Your task to perform on an android device: toggle location history Image 0: 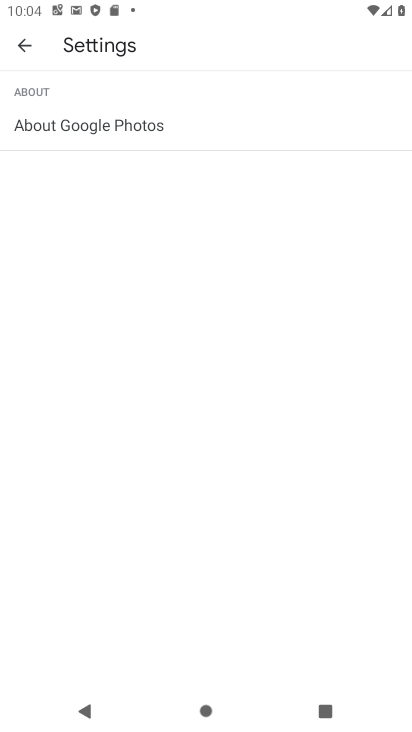
Step 0: press back button
Your task to perform on an android device: toggle location history Image 1: 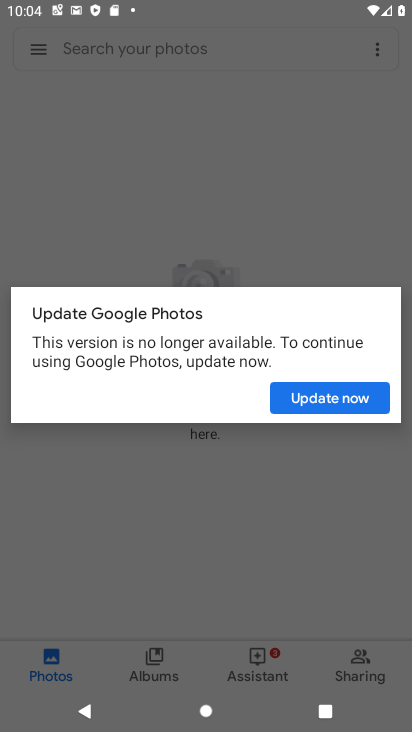
Step 1: press home button
Your task to perform on an android device: toggle location history Image 2: 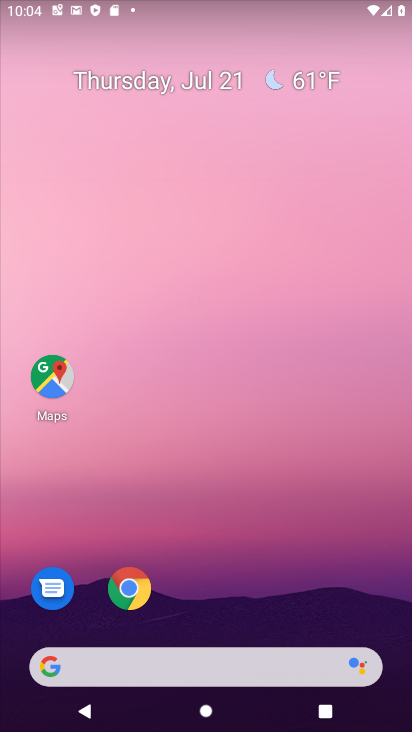
Step 2: drag from (205, 592) to (279, 0)
Your task to perform on an android device: toggle location history Image 3: 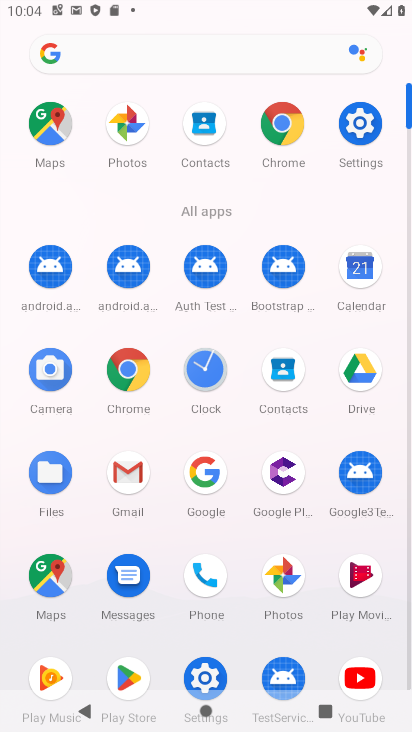
Step 3: click (356, 120)
Your task to perform on an android device: toggle location history Image 4: 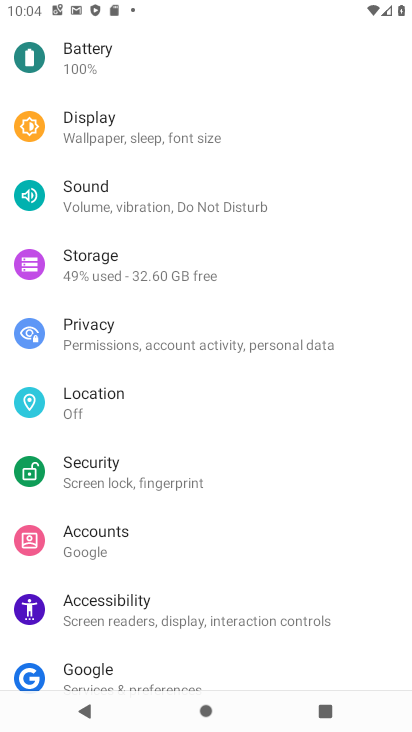
Step 4: click (118, 401)
Your task to perform on an android device: toggle location history Image 5: 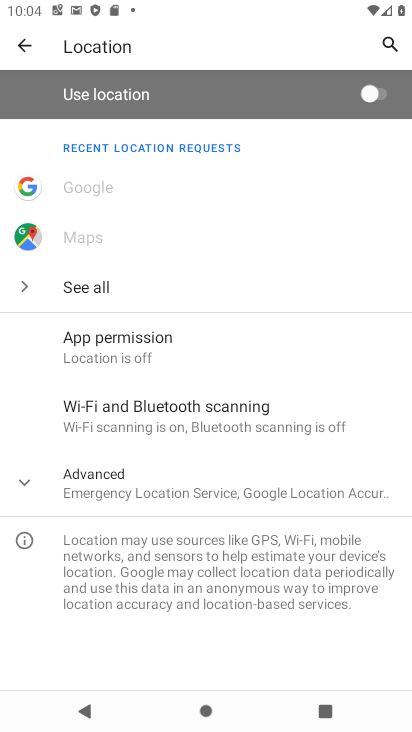
Step 5: click (137, 459)
Your task to perform on an android device: toggle location history Image 6: 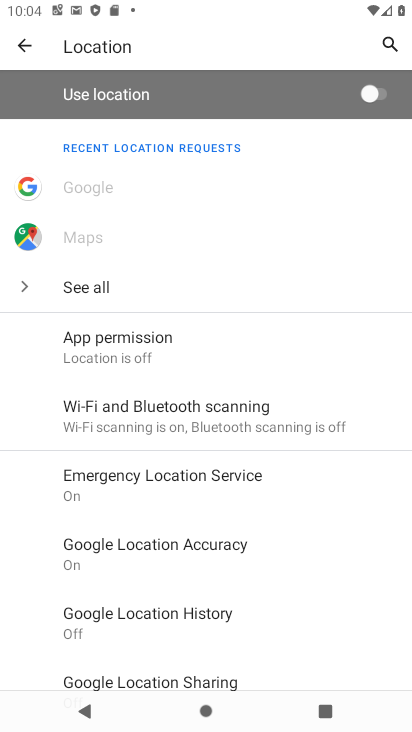
Step 6: click (167, 614)
Your task to perform on an android device: toggle location history Image 7: 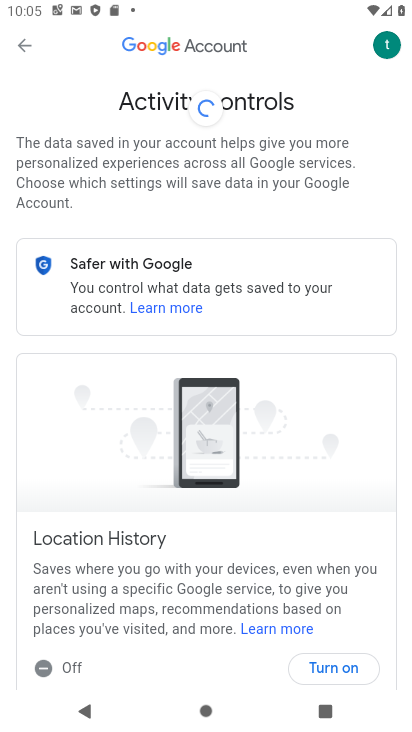
Step 7: click (363, 660)
Your task to perform on an android device: toggle location history Image 8: 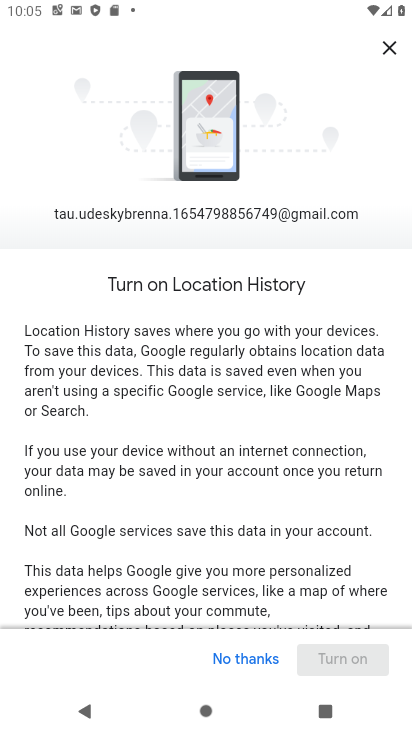
Step 8: drag from (244, 548) to (313, 11)
Your task to perform on an android device: toggle location history Image 9: 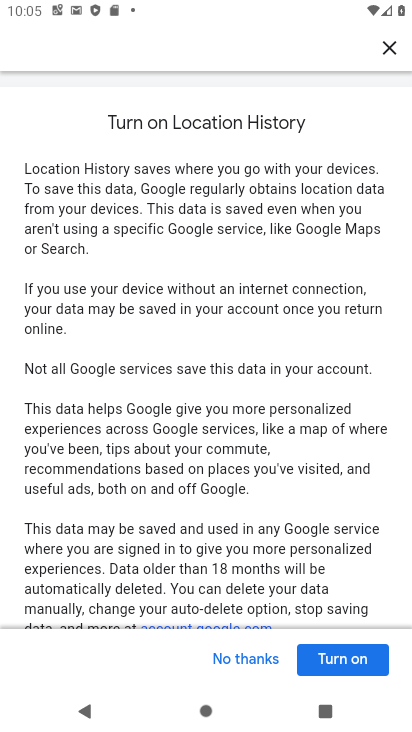
Step 9: click (334, 659)
Your task to perform on an android device: toggle location history Image 10: 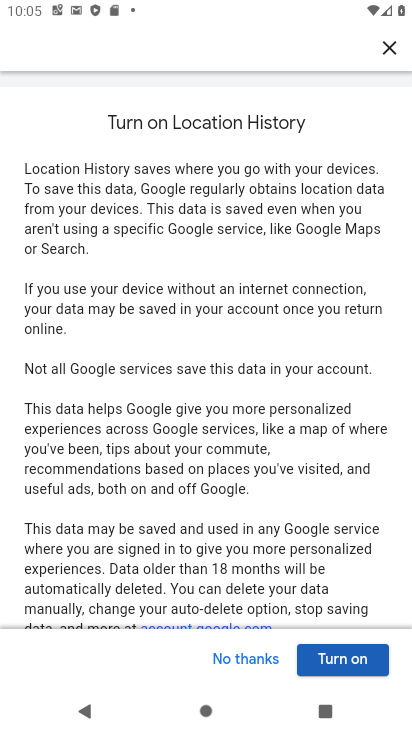
Step 10: click (340, 654)
Your task to perform on an android device: toggle location history Image 11: 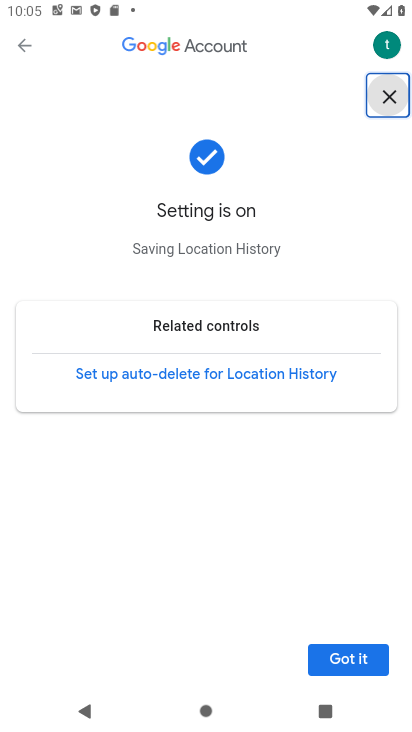
Step 11: task complete